Your task to perform on an android device: open app "Facebook" (install if not already installed) Image 0: 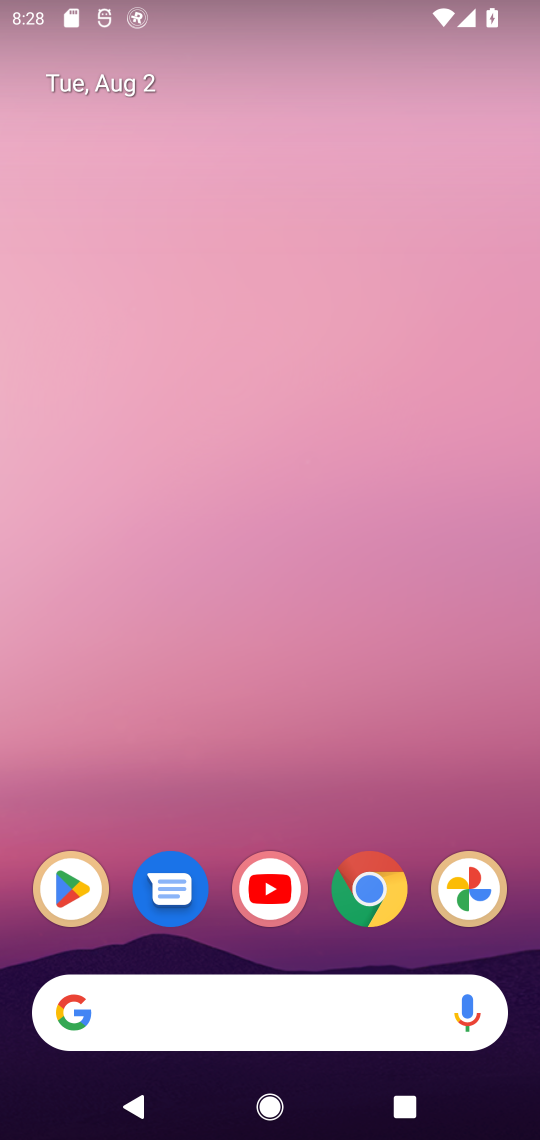
Step 0: press home button
Your task to perform on an android device: open app "Facebook" (install if not already installed) Image 1: 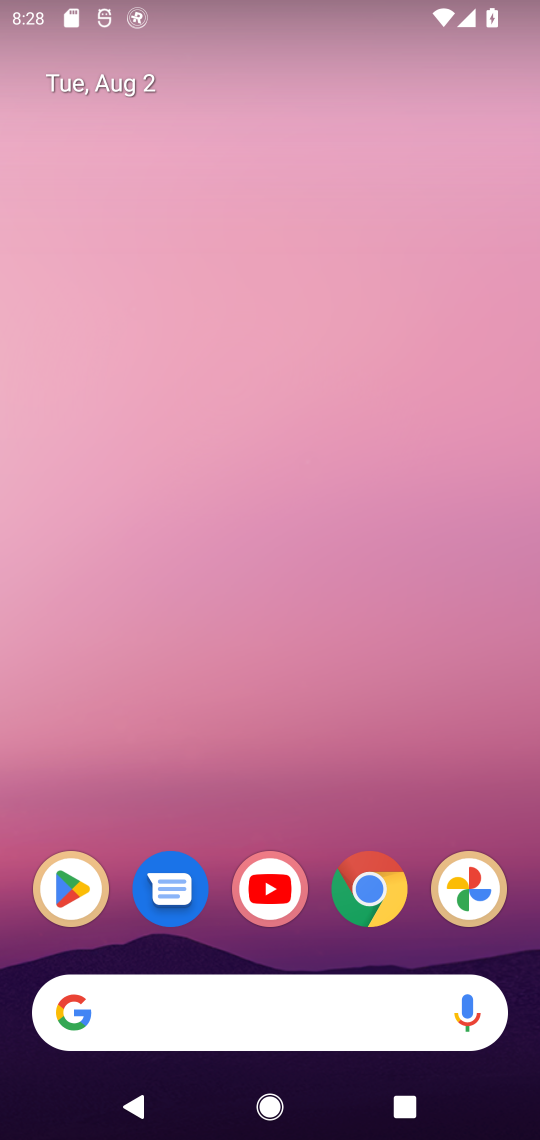
Step 1: click (70, 888)
Your task to perform on an android device: open app "Facebook" (install if not already installed) Image 2: 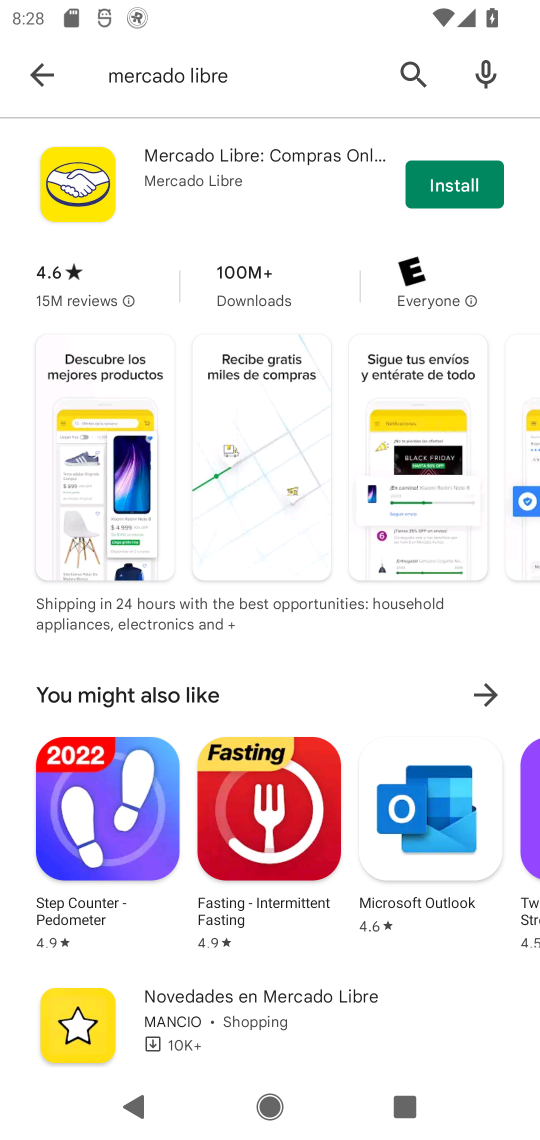
Step 2: click (408, 58)
Your task to perform on an android device: open app "Facebook" (install if not already installed) Image 3: 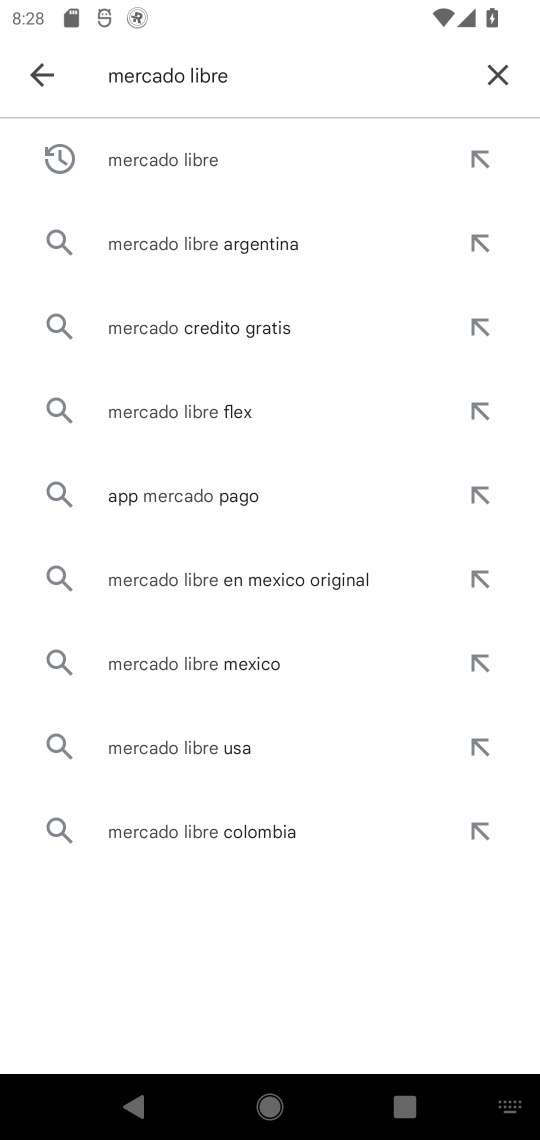
Step 3: click (497, 69)
Your task to perform on an android device: open app "Facebook" (install if not already installed) Image 4: 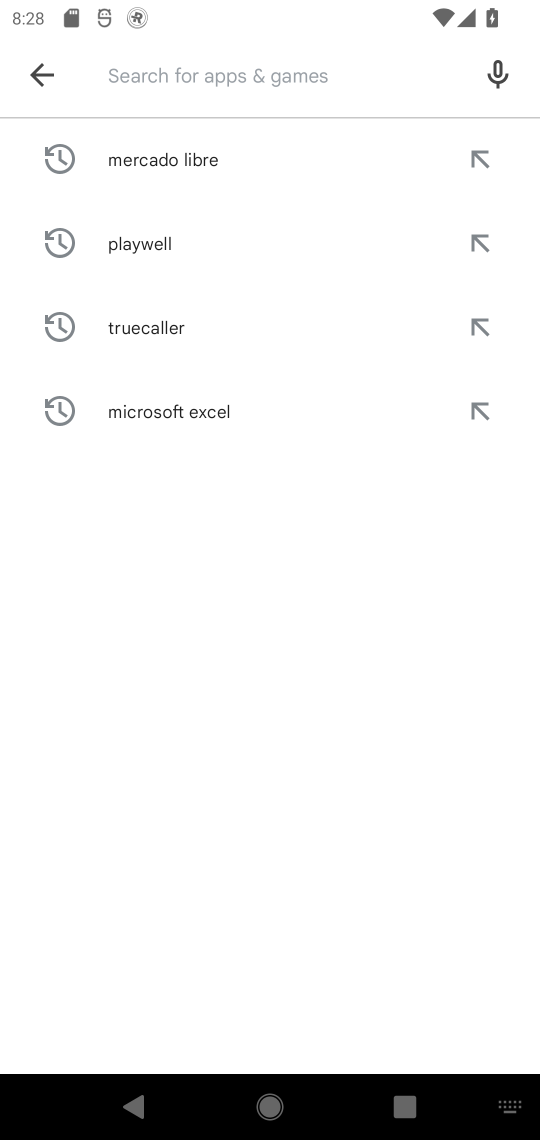
Step 4: type "Facebook"
Your task to perform on an android device: open app "Facebook" (install if not already installed) Image 5: 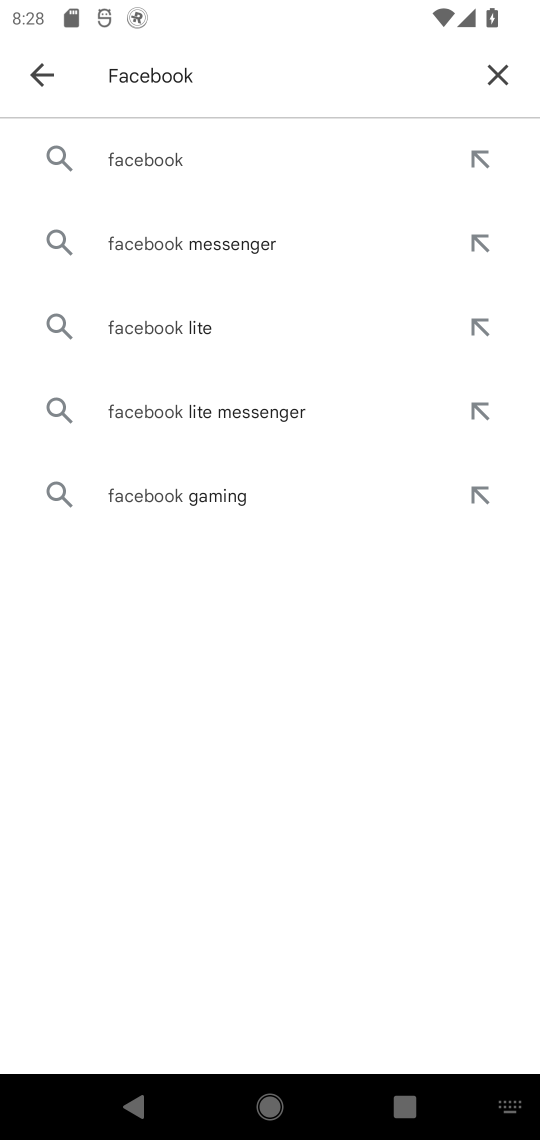
Step 5: click (140, 153)
Your task to perform on an android device: open app "Facebook" (install if not already installed) Image 6: 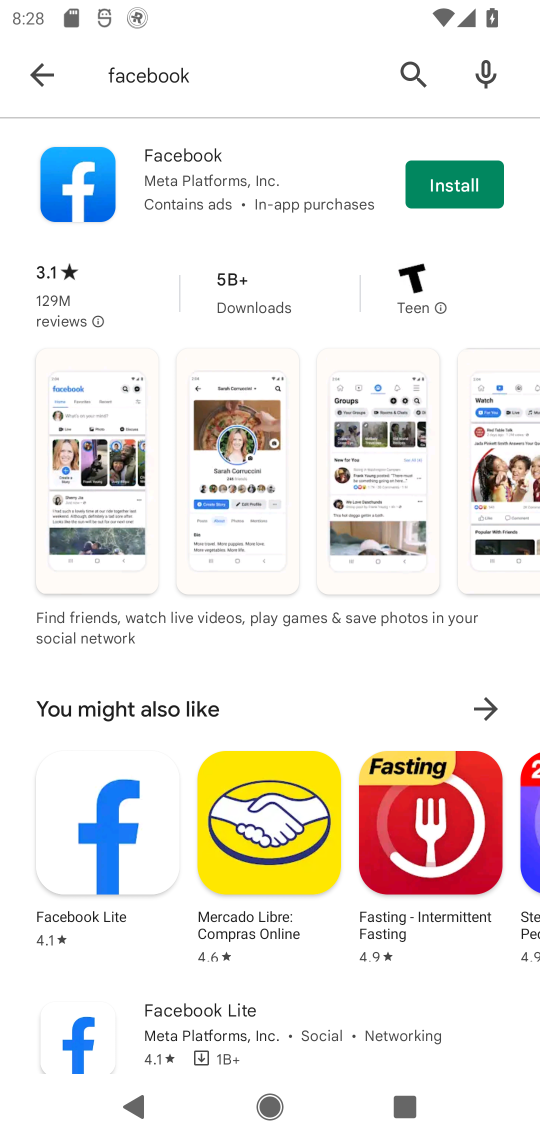
Step 6: click (475, 173)
Your task to perform on an android device: open app "Facebook" (install if not already installed) Image 7: 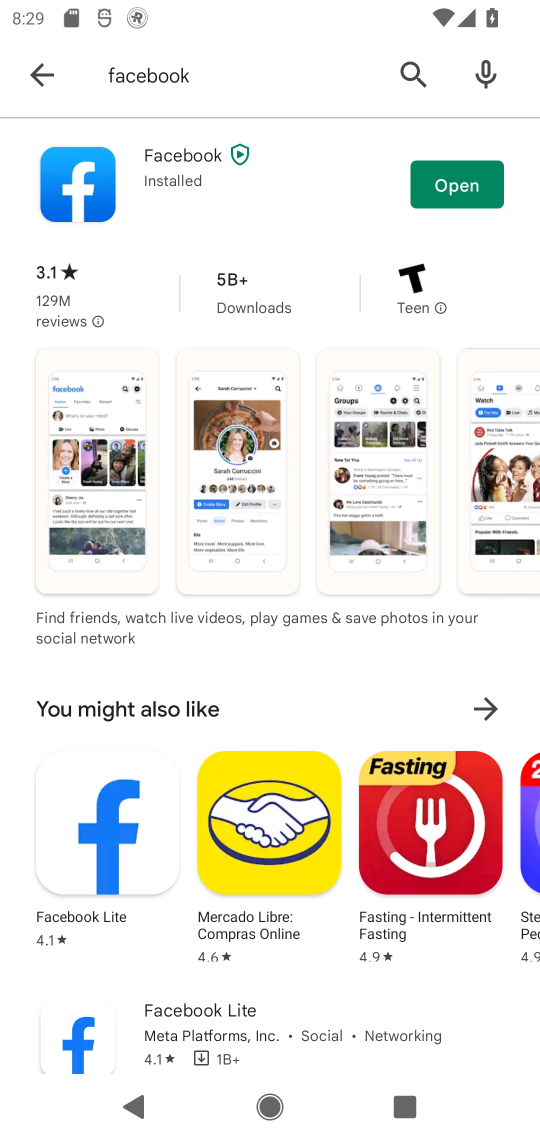
Step 7: click (466, 175)
Your task to perform on an android device: open app "Facebook" (install if not already installed) Image 8: 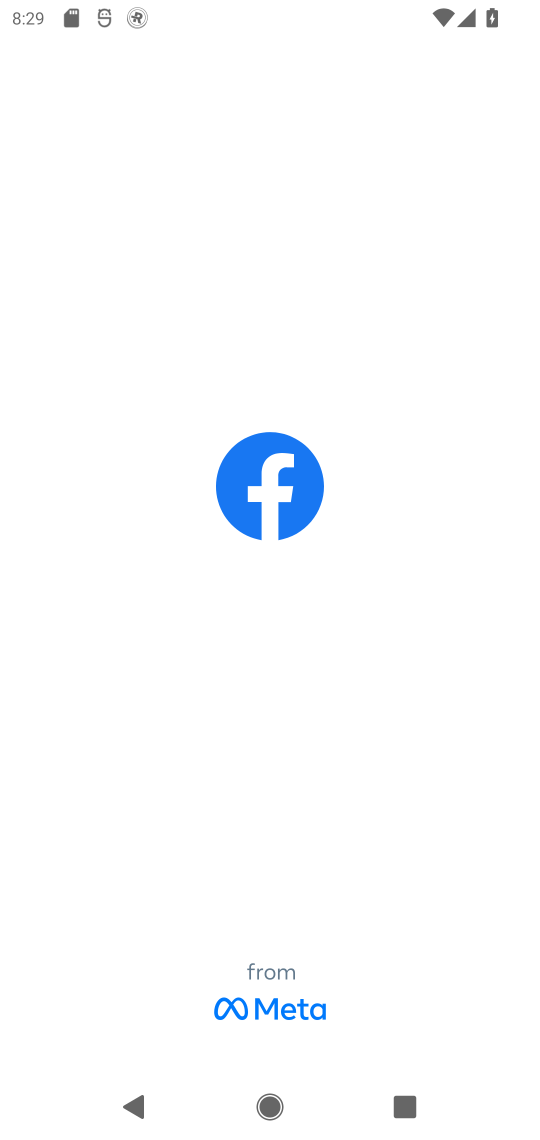
Step 8: task complete